Your task to perform on an android device: change the clock display to analog Image 0: 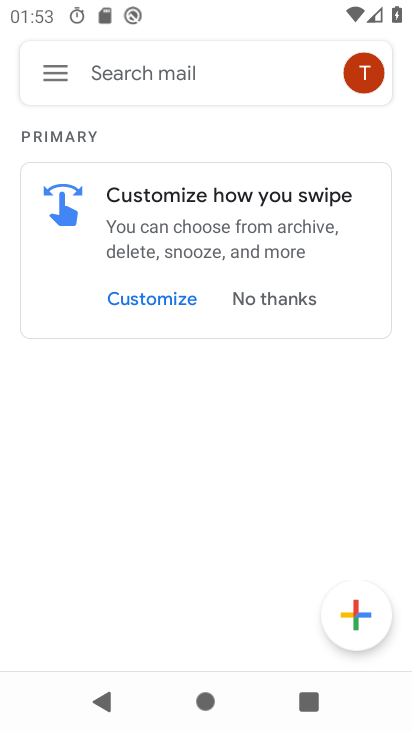
Step 0: press home button
Your task to perform on an android device: change the clock display to analog Image 1: 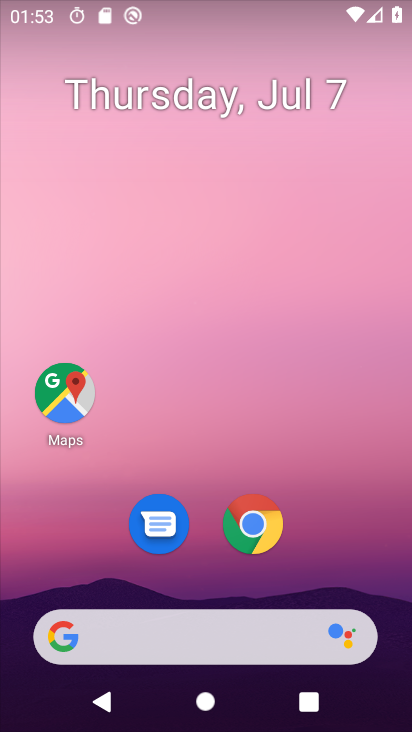
Step 1: drag from (236, 422) to (244, 8)
Your task to perform on an android device: change the clock display to analog Image 2: 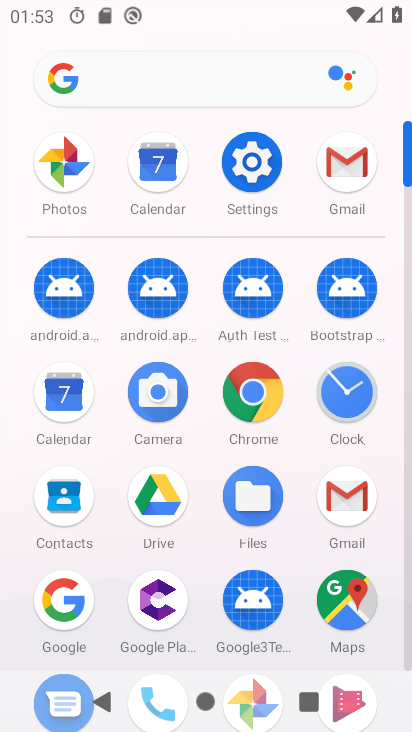
Step 2: click (349, 401)
Your task to perform on an android device: change the clock display to analog Image 3: 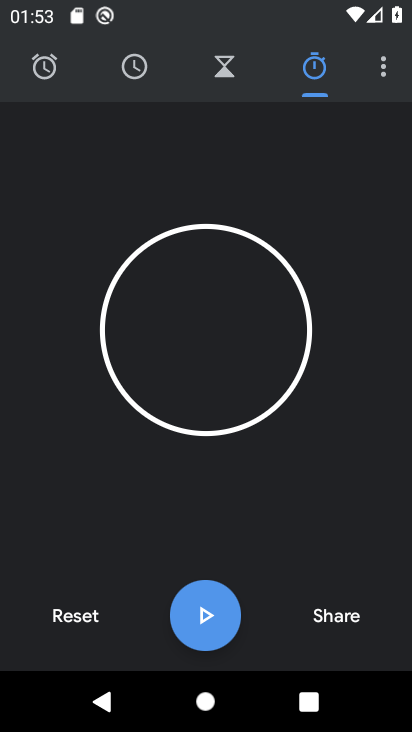
Step 3: click (129, 76)
Your task to perform on an android device: change the clock display to analog Image 4: 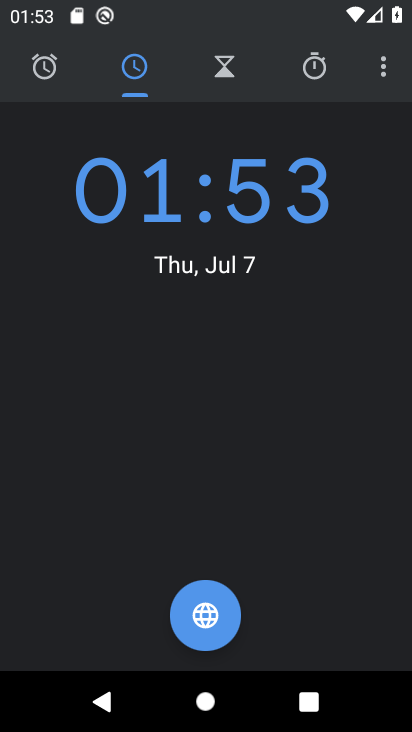
Step 4: click (386, 63)
Your task to perform on an android device: change the clock display to analog Image 5: 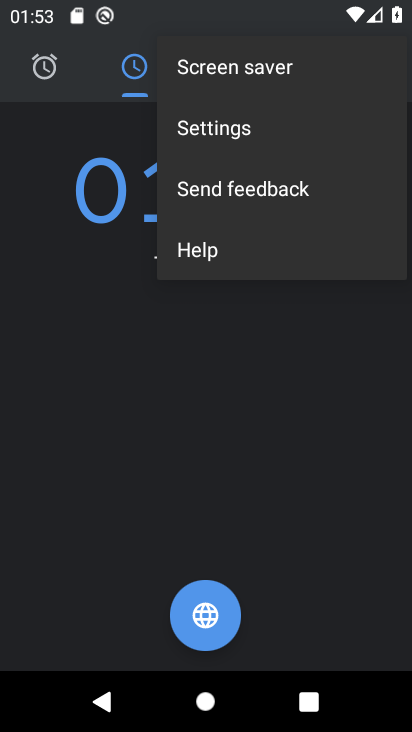
Step 5: click (314, 122)
Your task to perform on an android device: change the clock display to analog Image 6: 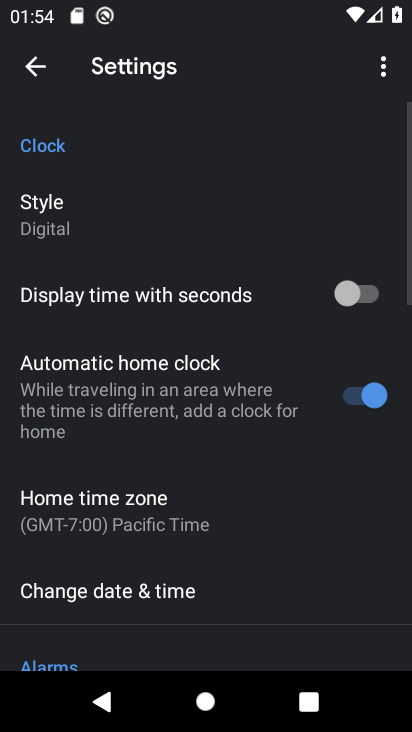
Step 6: click (64, 223)
Your task to perform on an android device: change the clock display to analog Image 7: 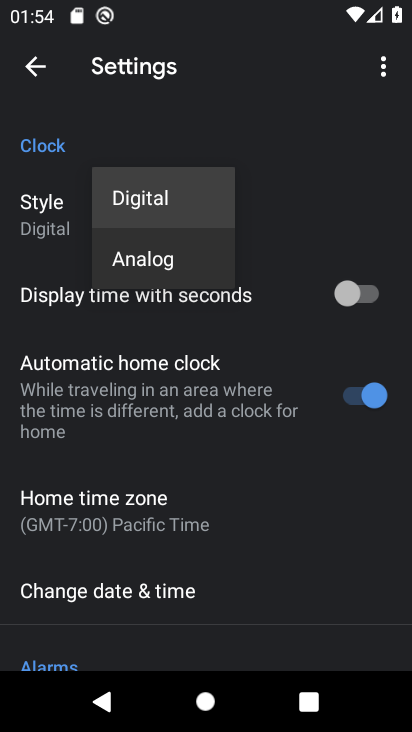
Step 7: click (119, 262)
Your task to perform on an android device: change the clock display to analog Image 8: 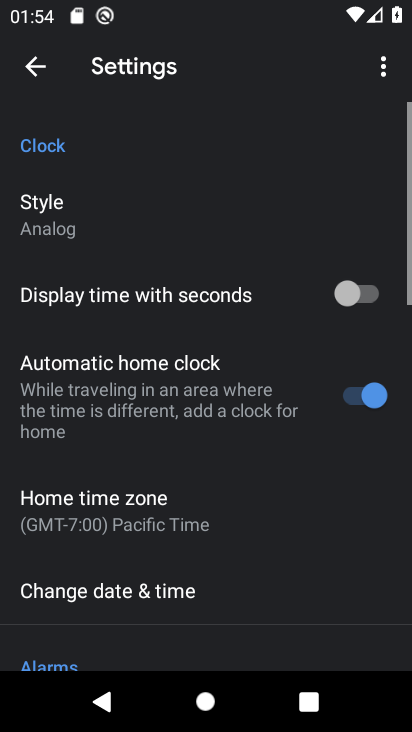
Step 8: click (39, 71)
Your task to perform on an android device: change the clock display to analog Image 9: 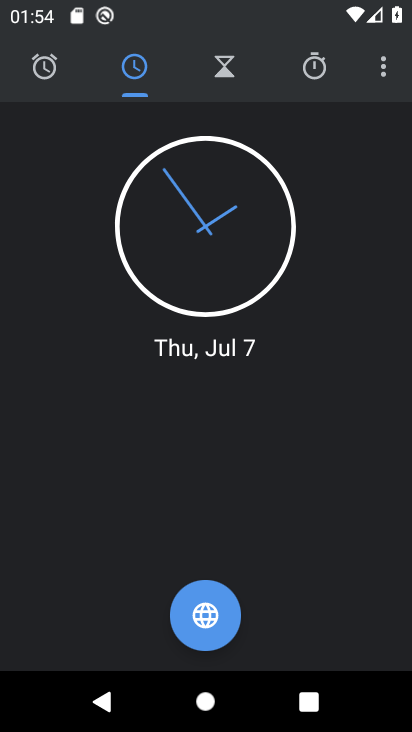
Step 9: task complete